Your task to perform on an android device: turn on wifi Image 0: 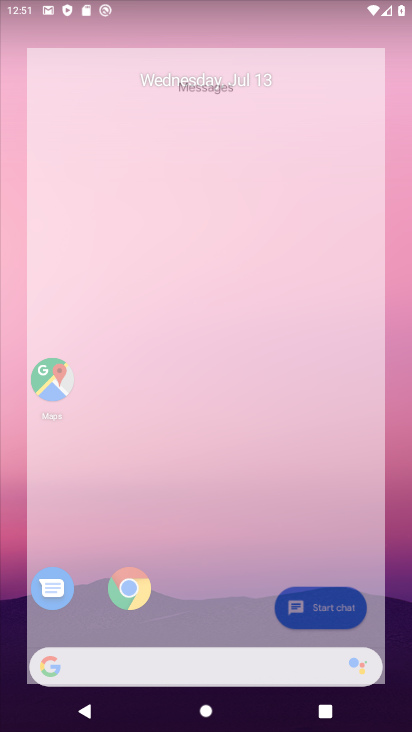
Step 0: press home button
Your task to perform on an android device: turn on wifi Image 1: 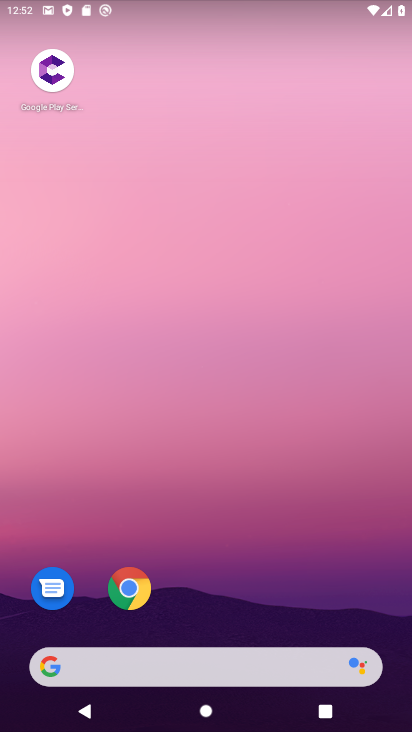
Step 1: task complete